Your task to perform on an android device: Go to battery settings Image 0: 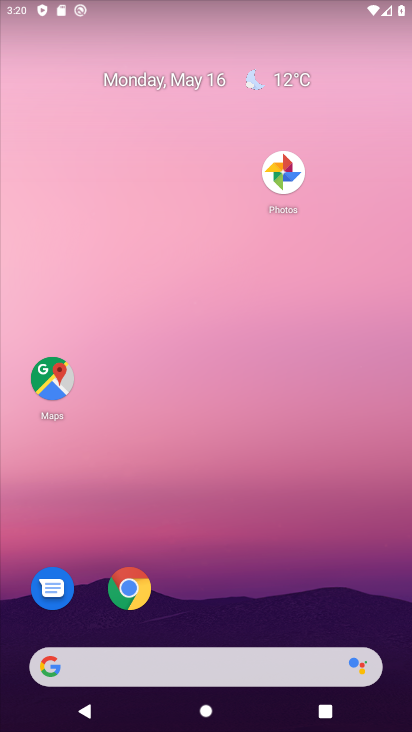
Step 0: drag from (270, 19) to (238, 620)
Your task to perform on an android device: Go to battery settings Image 1: 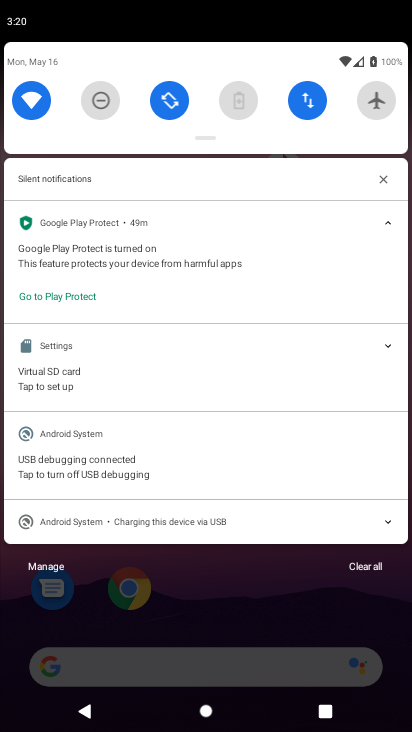
Step 1: drag from (248, 76) to (243, 624)
Your task to perform on an android device: Go to battery settings Image 2: 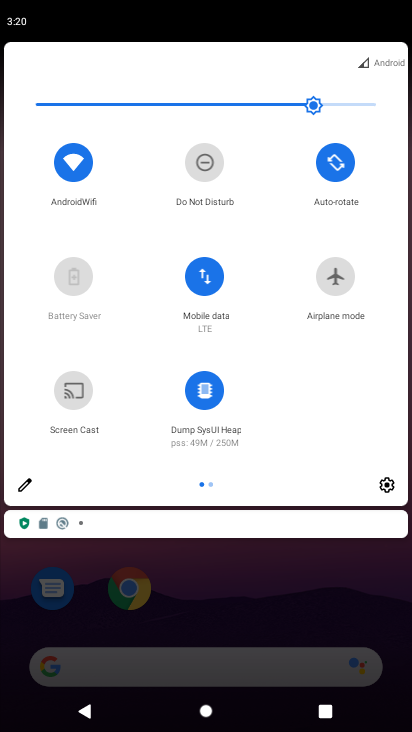
Step 2: click (376, 493)
Your task to perform on an android device: Go to battery settings Image 3: 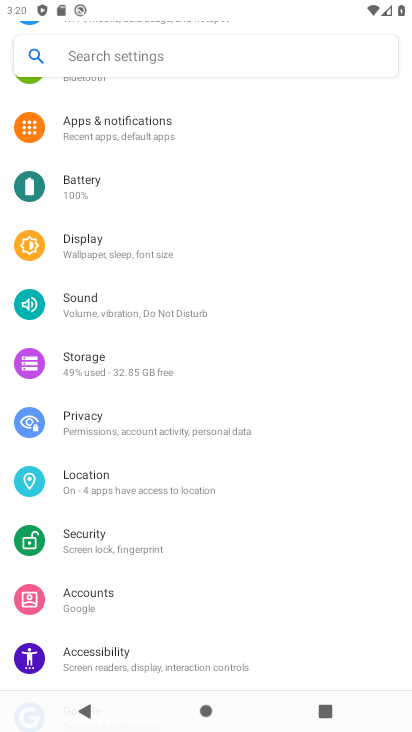
Step 3: task complete